Your task to perform on an android device: see creations saved in the google photos Image 0: 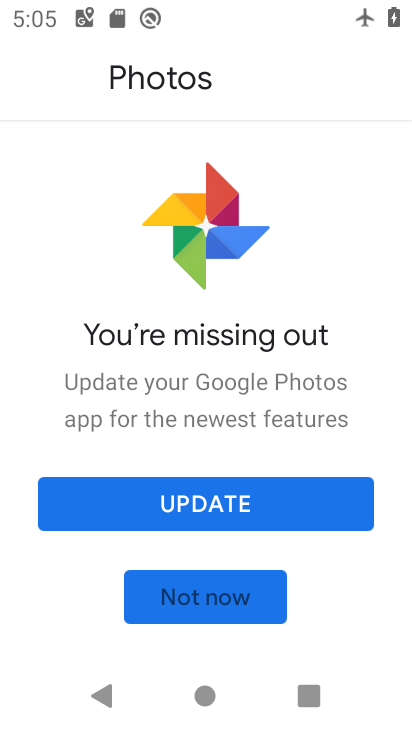
Step 0: press home button
Your task to perform on an android device: see creations saved in the google photos Image 1: 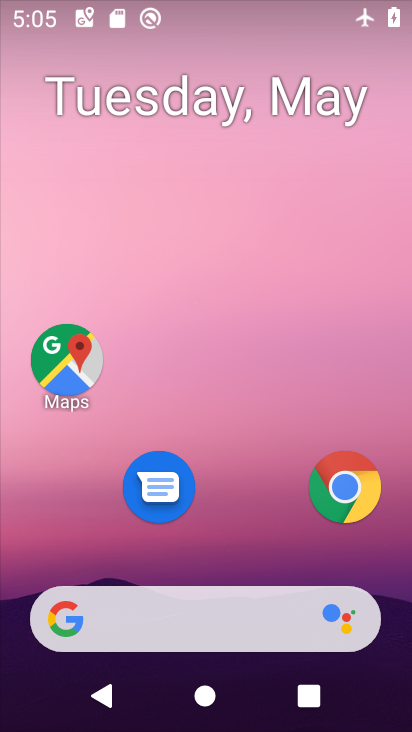
Step 1: drag from (285, 552) to (228, 6)
Your task to perform on an android device: see creations saved in the google photos Image 2: 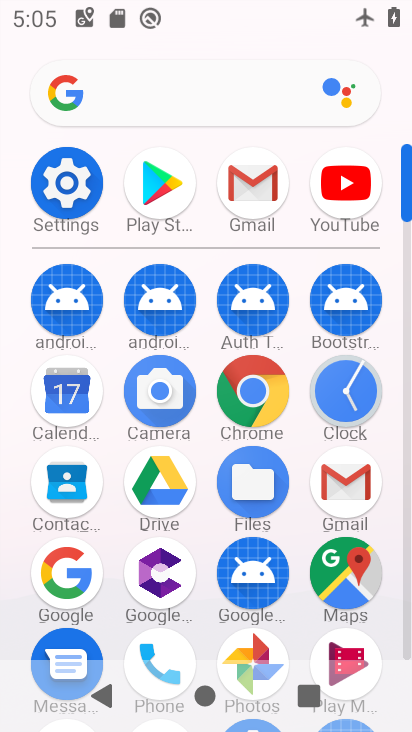
Step 2: click (230, 645)
Your task to perform on an android device: see creations saved in the google photos Image 3: 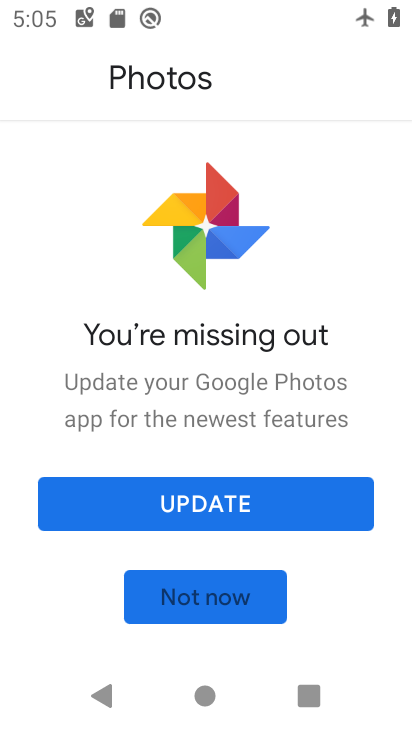
Step 3: click (239, 511)
Your task to perform on an android device: see creations saved in the google photos Image 4: 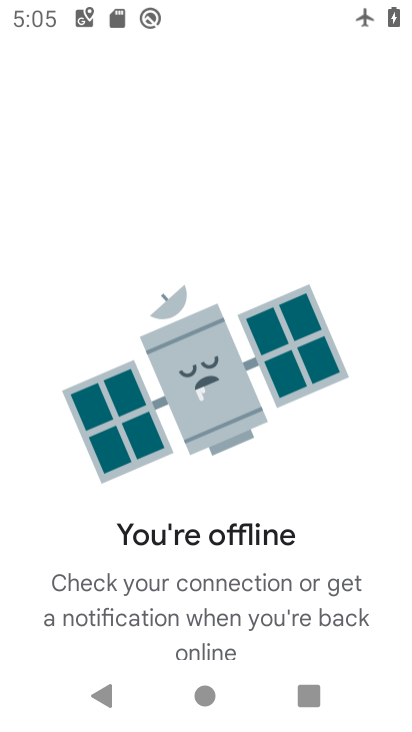
Step 4: task complete